Your task to perform on an android device: Open network settings Image 0: 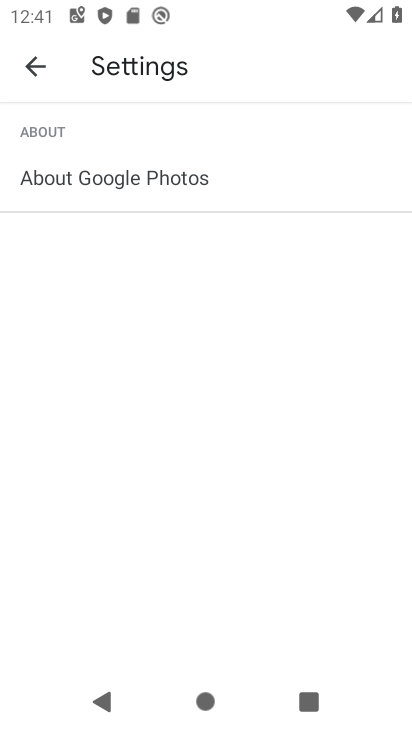
Step 0: press home button
Your task to perform on an android device: Open network settings Image 1: 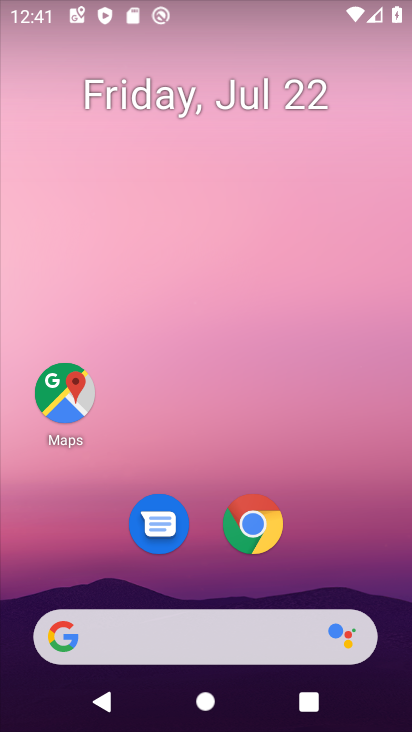
Step 1: drag from (321, 565) to (373, 78)
Your task to perform on an android device: Open network settings Image 2: 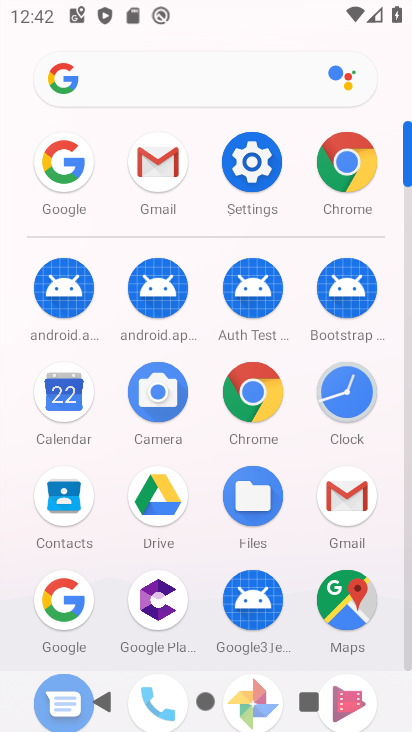
Step 2: click (247, 172)
Your task to perform on an android device: Open network settings Image 3: 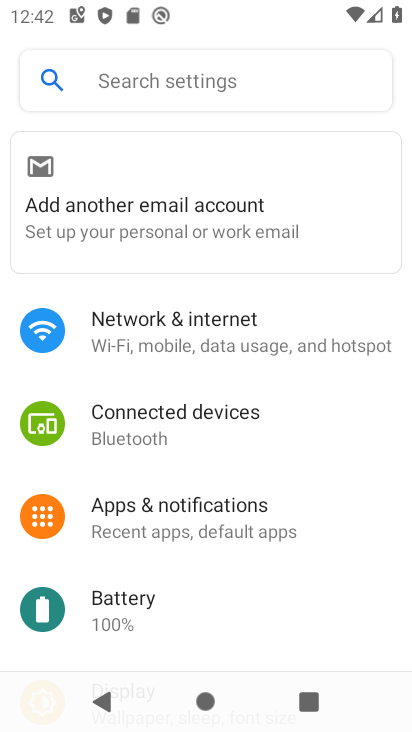
Step 3: click (214, 329)
Your task to perform on an android device: Open network settings Image 4: 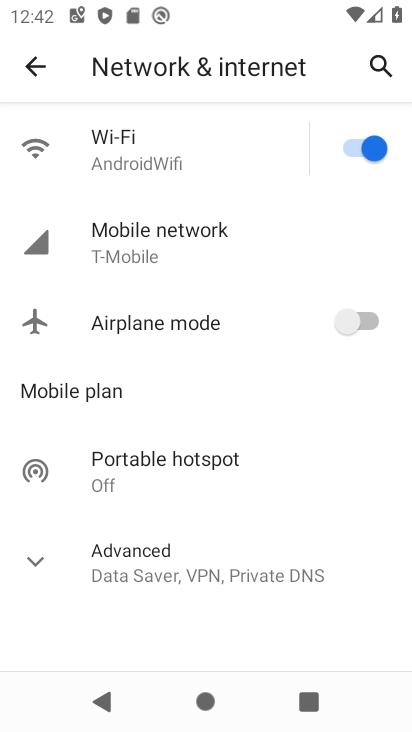
Step 4: task complete